Your task to perform on an android device: Is it going to rain today? Image 0: 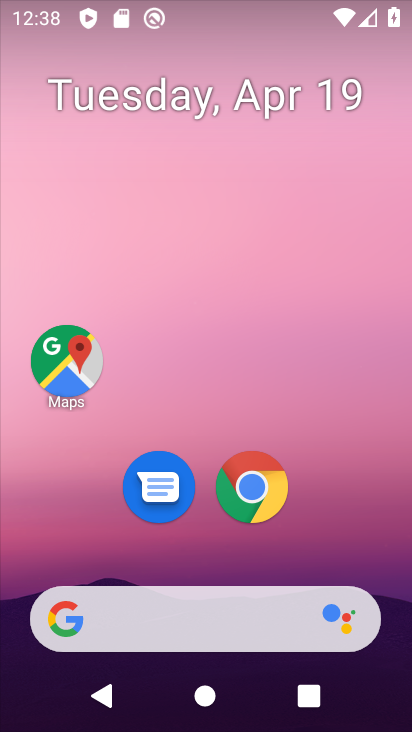
Step 0: drag from (181, 563) to (142, 87)
Your task to perform on an android device: Is it going to rain today? Image 1: 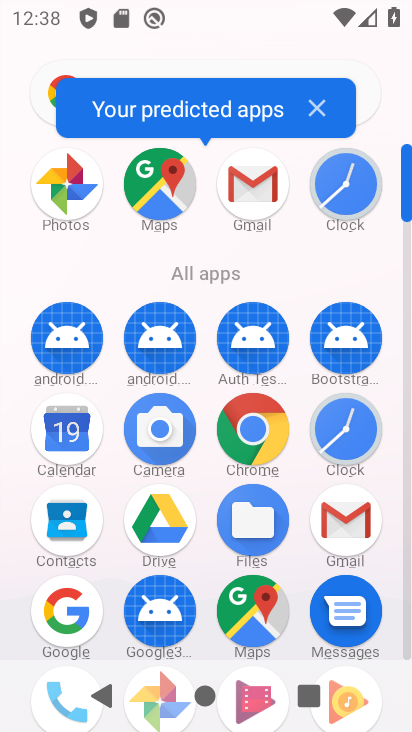
Step 1: click (69, 607)
Your task to perform on an android device: Is it going to rain today? Image 2: 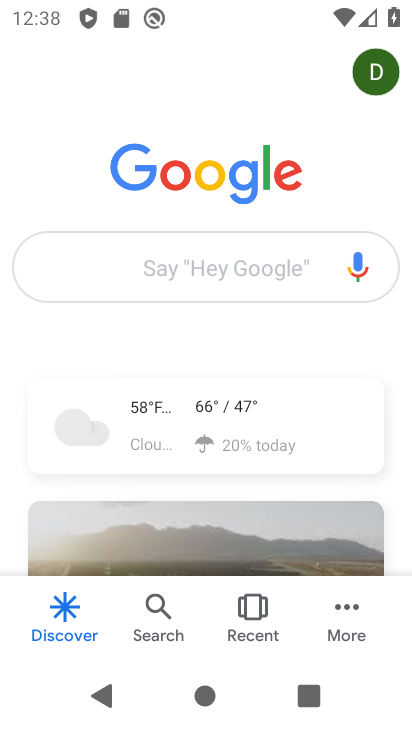
Step 2: click (233, 415)
Your task to perform on an android device: Is it going to rain today? Image 3: 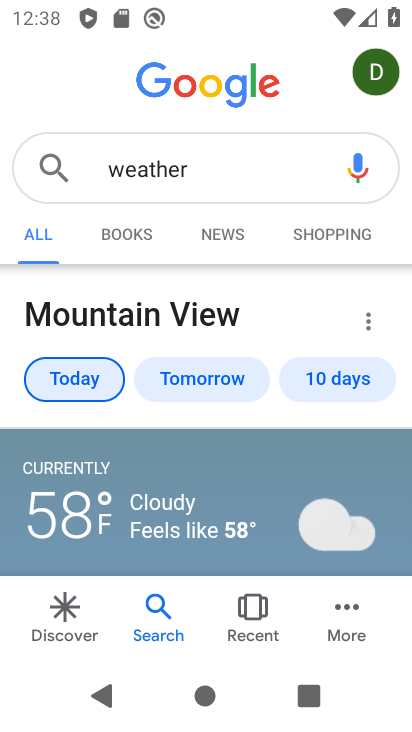
Step 3: task complete